Your task to perform on an android device: toggle javascript in the chrome app Image 0: 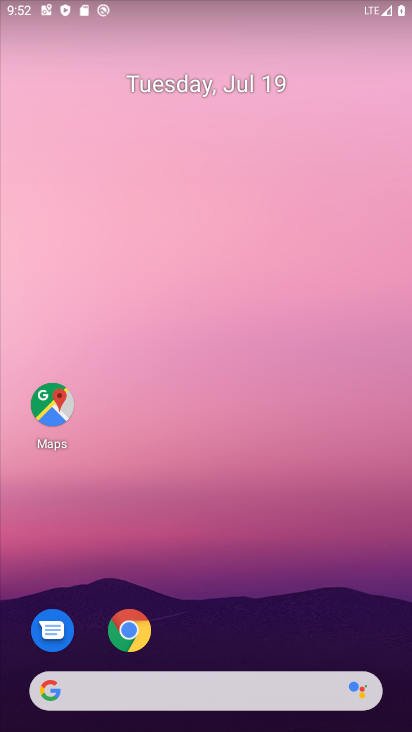
Step 0: click (130, 631)
Your task to perform on an android device: toggle javascript in the chrome app Image 1: 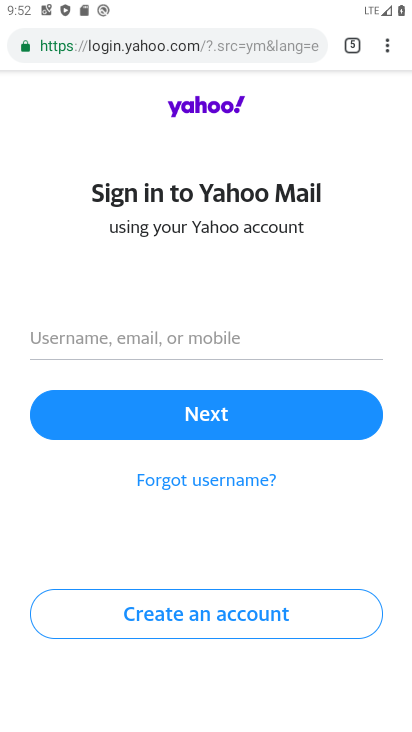
Step 1: click (382, 40)
Your task to perform on an android device: toggle javascript in the chrome app Image 2: 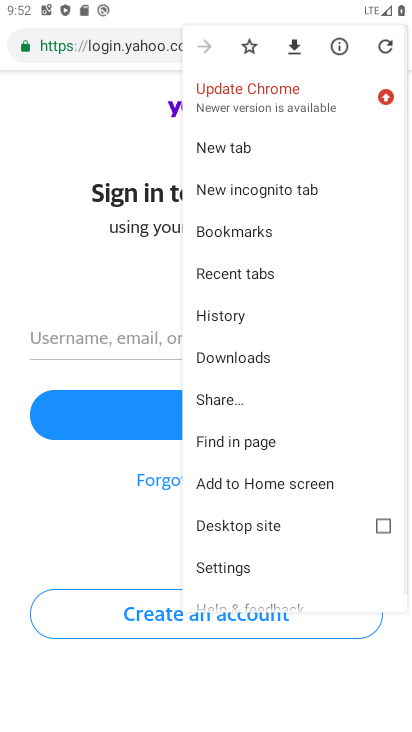
Step 2: click (232, 572)
Your task to perform on an android device: toggle javascript in the chrome app Image 3: 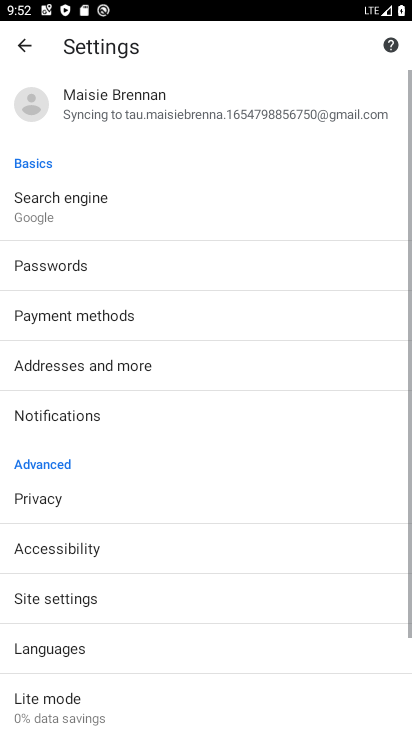
Step 3: click (64, 604)
Your task to perform on an android device: toggle javascript in the chrome app Image 4: 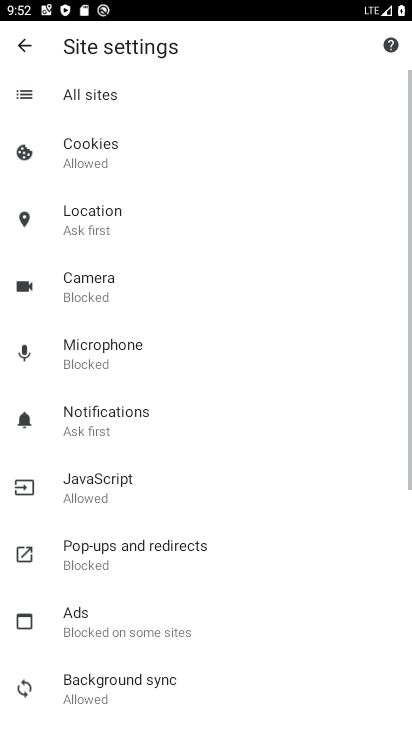
Step 4: click (119, 491)
Your task to perform on an android device: toggle javascript in the chrome app Image 5: 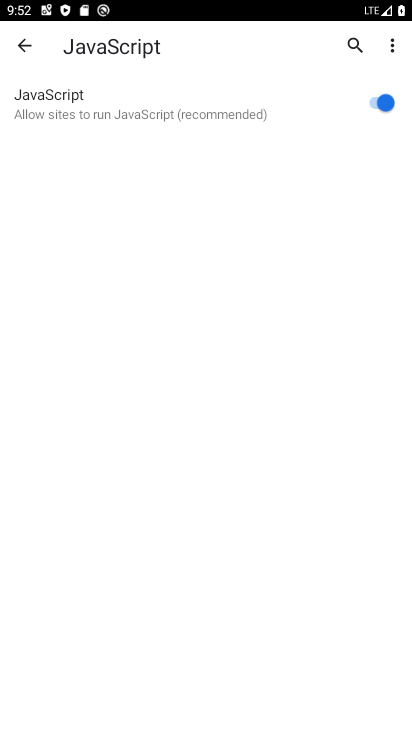
Step 5: click (379, 101)
Your task to perform on an android device: toggle javascript in the chrome app Image 6: 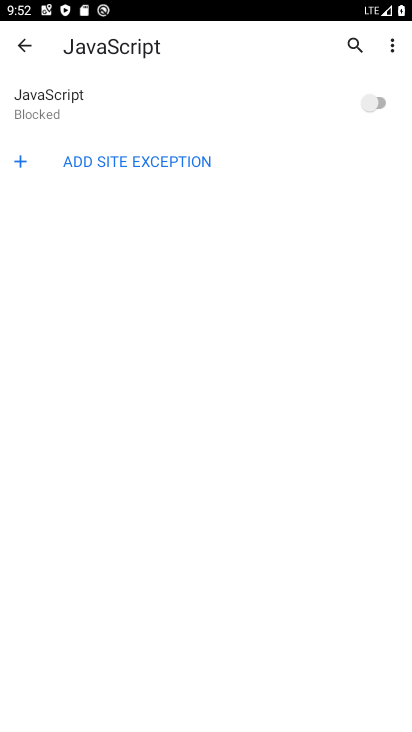
Step 6: task complete